Your task to perform on an android device: Go to battery settings Image 0: 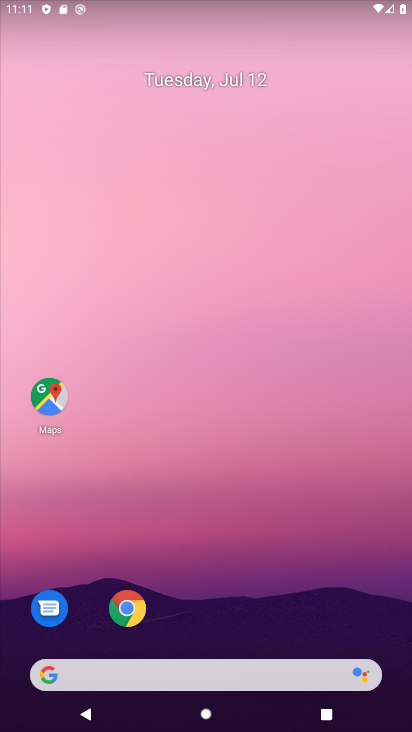
Step 0: drag from (220, 5) to (167, 688)
Your task to perform on an android device: Go to battery settings Image 1: 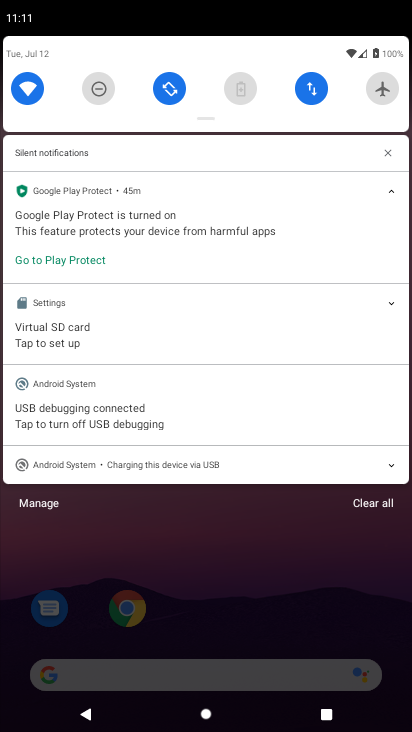
Step 1: click (238, 87)
Your task to perform on an android device: Go to battery settings Image 2: 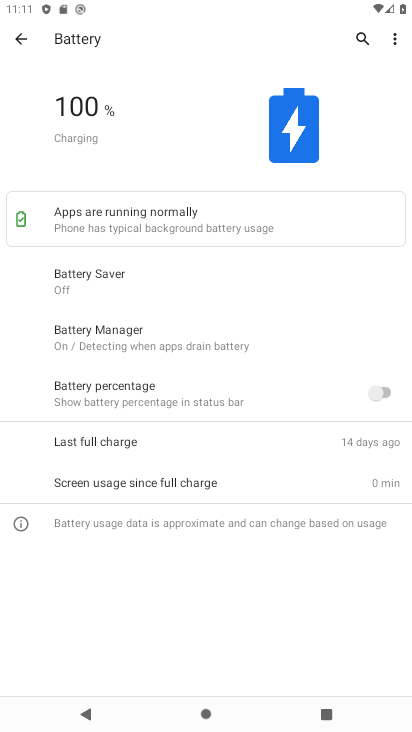
Step 2: task complete